Your task to perform on an android device: Go to Yahoo.com Image 0: 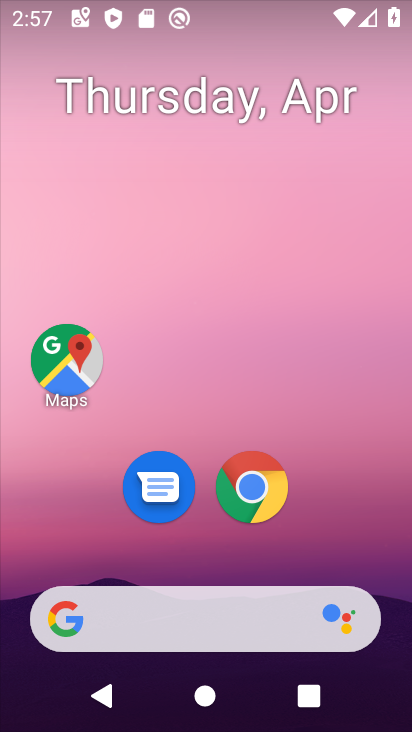
Step 0: drag from (281, 421) to (300, 200)
Your task to perform on an android device: Go to Yahoo.com Image 1: 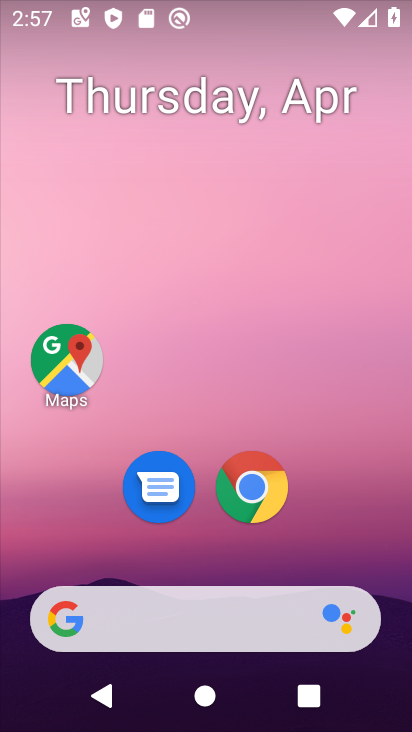
Step 1: click (298, 189)
Your task to perform on an android device: Go to Yahoo.com Image 2: 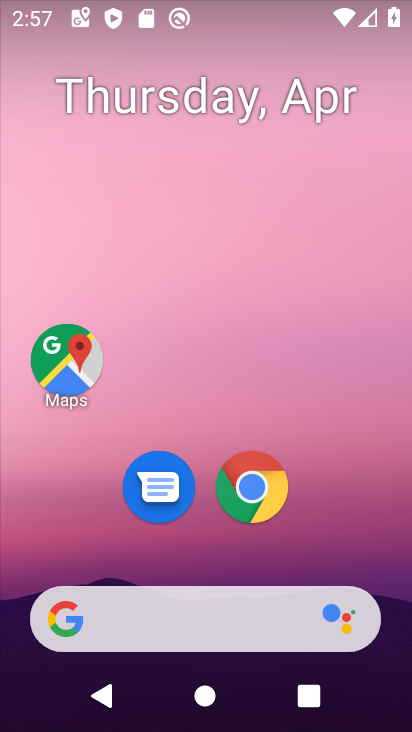
Step 2: click (298, 189)
Your task to perform on an android device: Go to Yahoo.com Image 3: 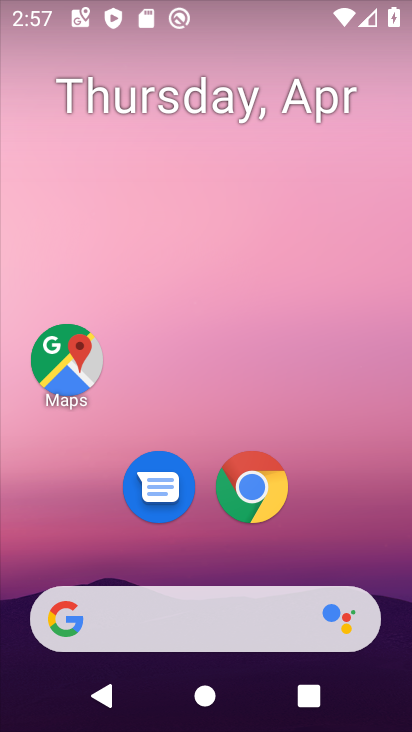
Step 3: click (298, 189)
Your task to perform on an android device: Go to Yahoo.com Image 4: 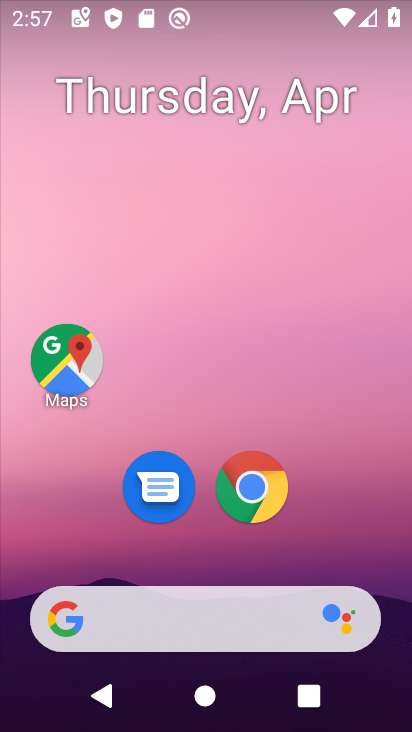
Step 4: click (242, 498)
Your task to perform on an android device: Go to Yahoo.com Image 5: 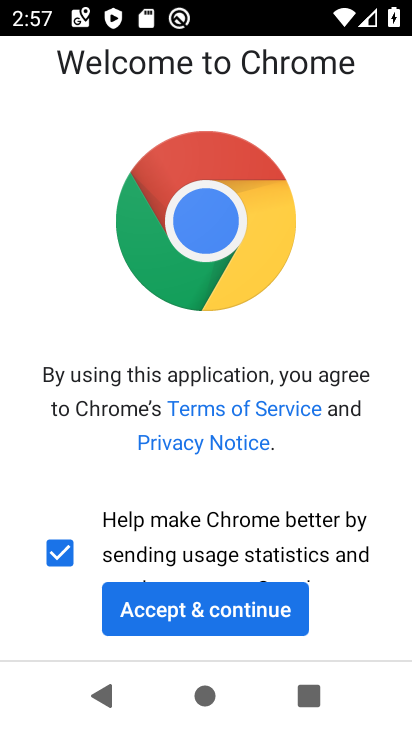
Step 5: click (232, 620)
Your task to perform on an android device: Go to Yahoo.com Image 6: 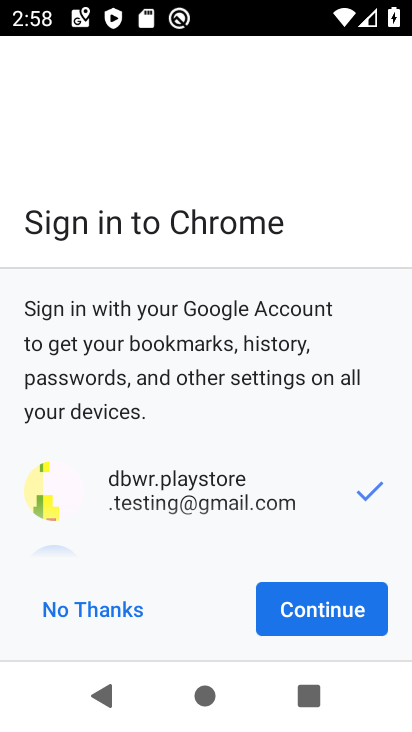
Step 6: click (309, 617)
Your task to perform on an android device: Go to Yahoo.com Image 7: 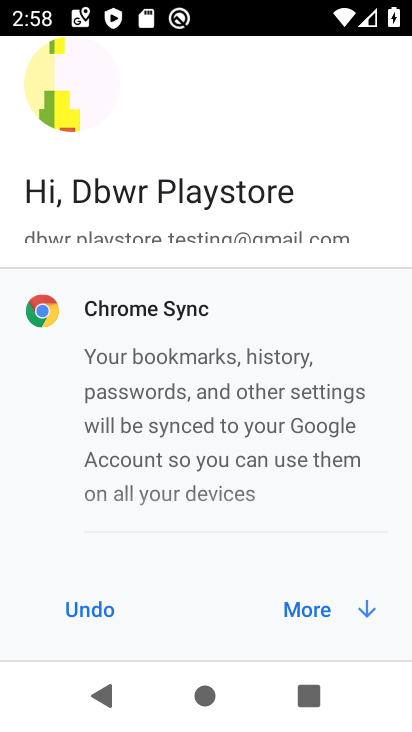
Step 7: click (309, 617)
Your task to perform on an android device: Go to Yahoo.com Image 8: 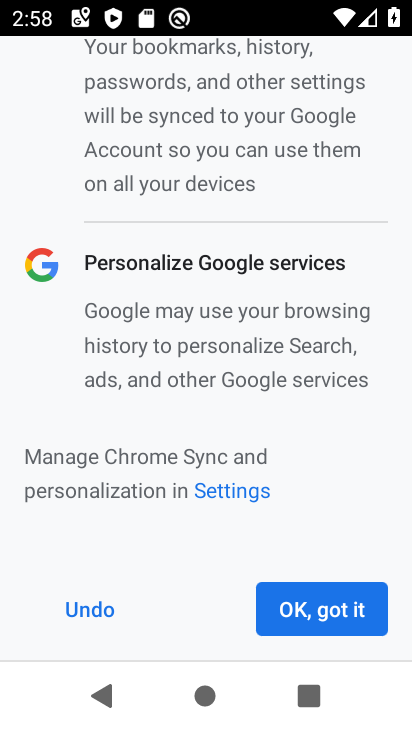
Step 8: click (309, 617)
Your task to perform on an android device: Go to Yahoo.com Image 9: 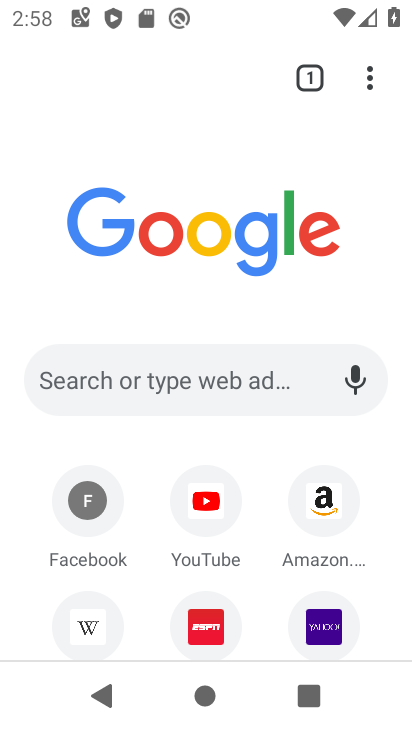
Step 9: drag from (197, 588) to (238, 242)
Your task to perform on an android device: Go to Yahoo.com Image 10: 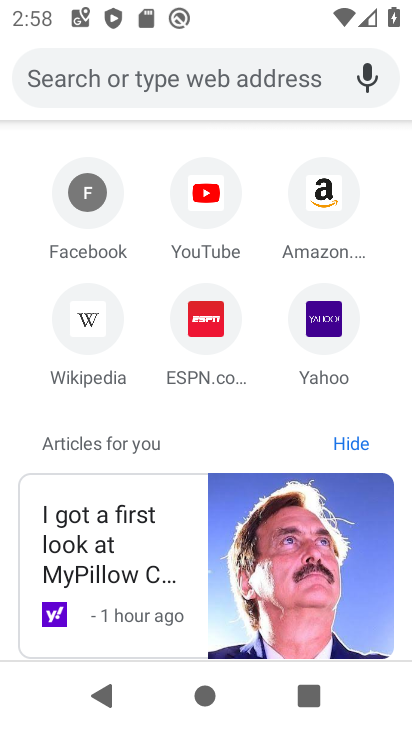
Step 10: click (298, 308)
Your task to perform on an android device: Go to Yahoo.com Image 11: 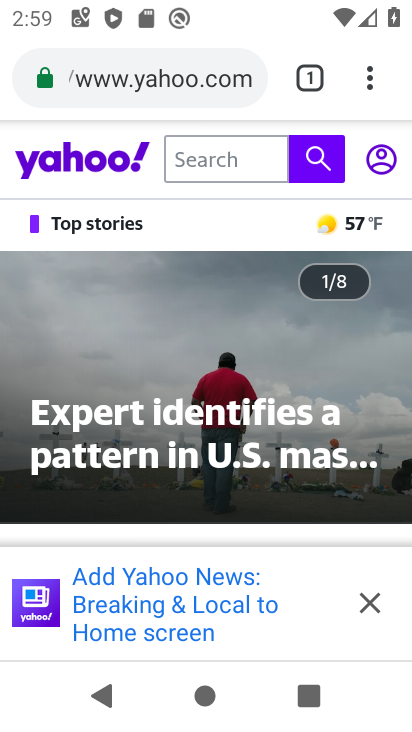
Step 11: task complete